Your task to perform on an android device: Clear the cart on target. Add jbl flip 4 to the cart on target Image 0: 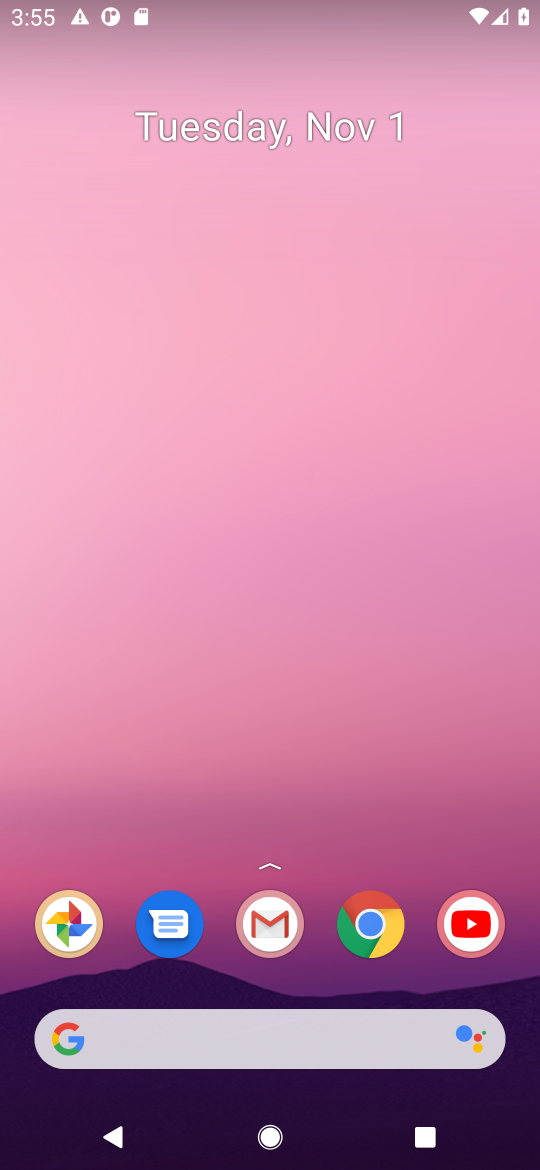
Step 0: click (382, 926)
Your task to perform on an android device: Clear the cart on target. Add jbl flip 4 to the cart on target Image 1: 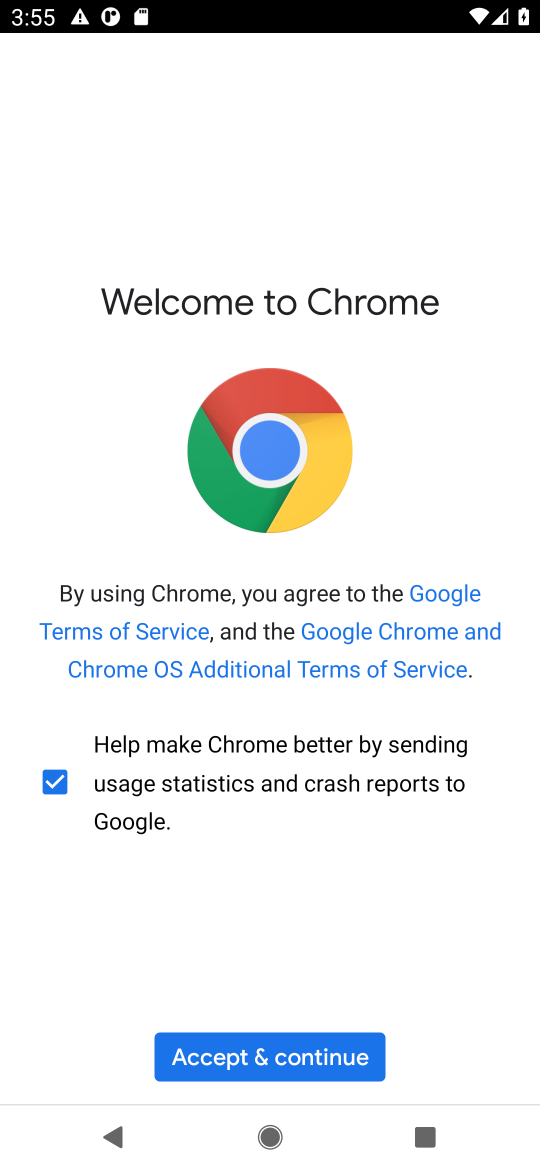
Step 1: click (231, 1068)
Your task to perform on an android device: Clear the cart on target. Add jbl flip 4 to the cart on target Image 2: 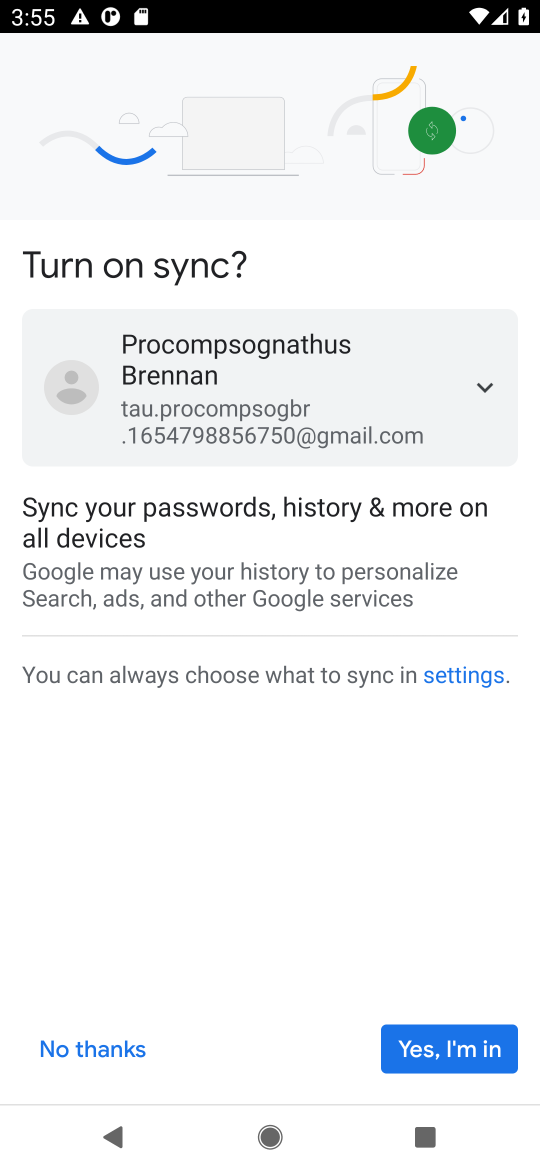
Step 2: click (427, 1055)
Your task to perform on an android device: Clear the cart on target. Add jbl flip 4 to the cart on target Image 3: 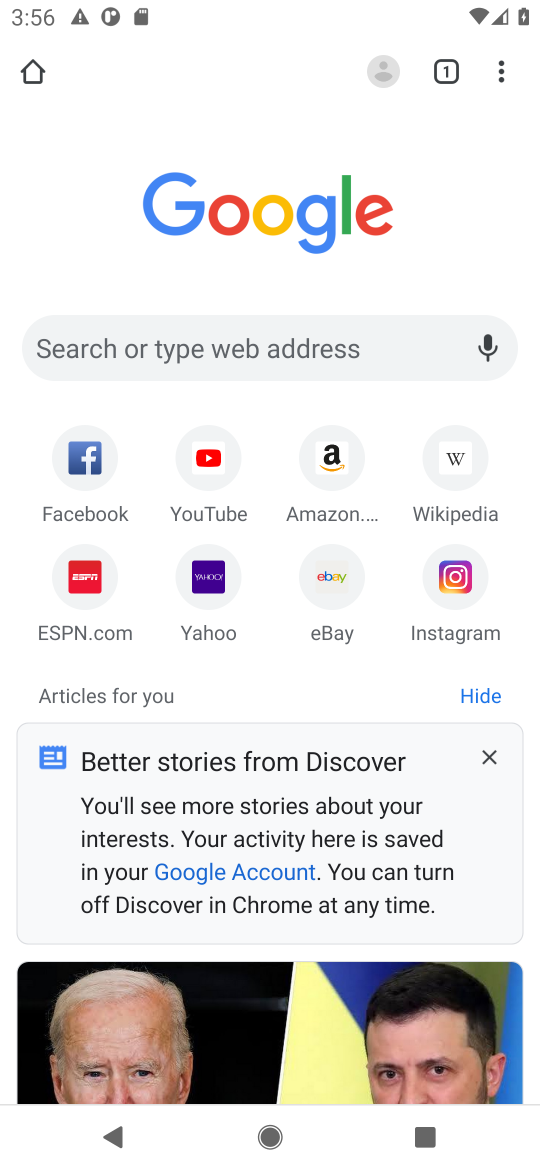
Step 3: click (350, 347)
Your task to perform on an android device: Clear the cart on target. Add jbl flip 4 to the cart on target Image 4: 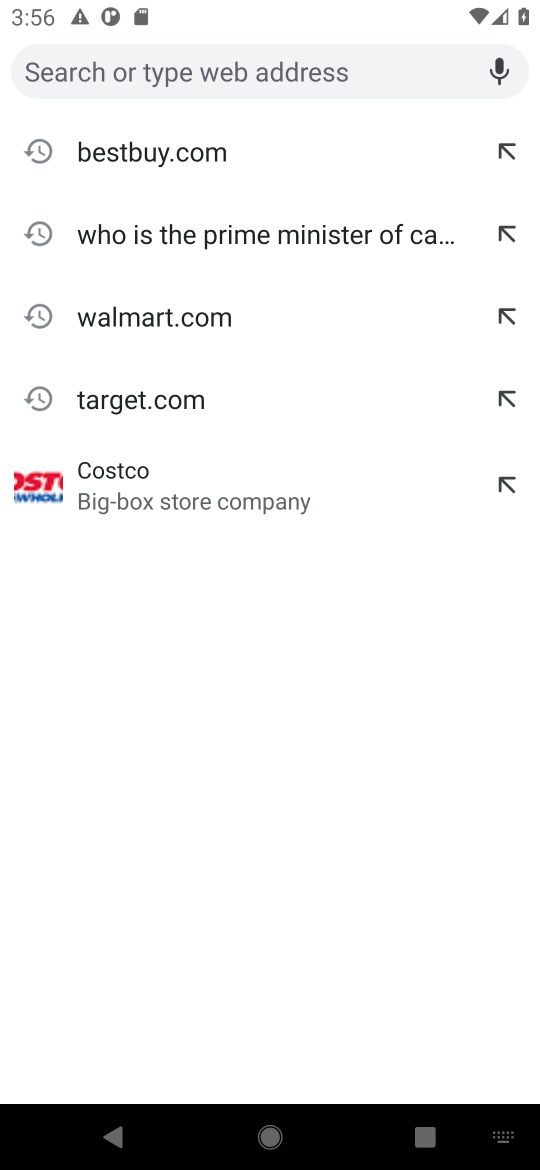
Step 4: click (184, 416)
Your task to perform on an android device: Clear the cart on target. Add jbl flip 4 to the cart on target Image 5: 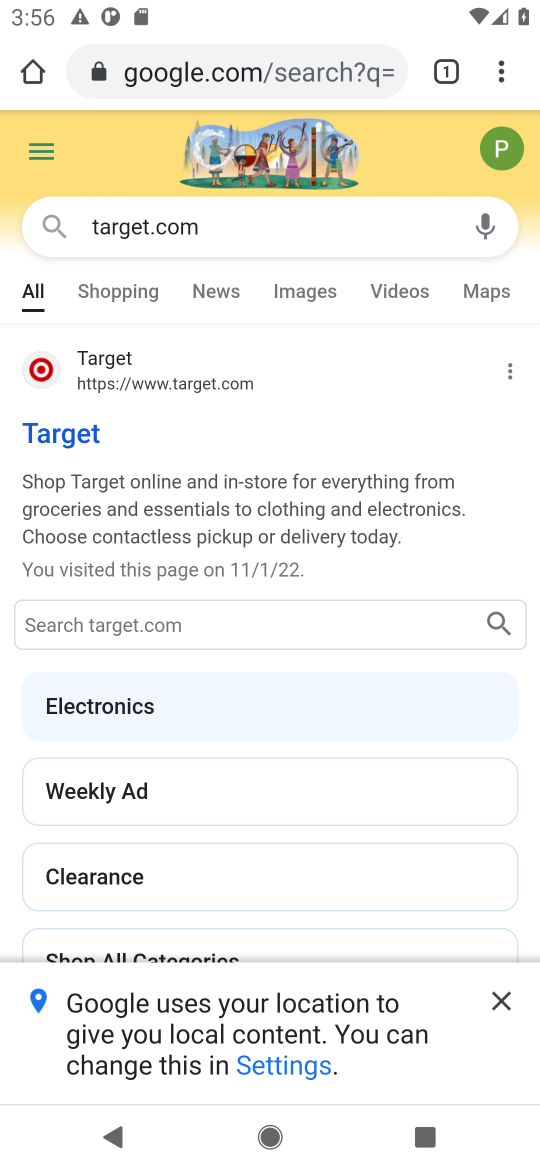
Step 5: click (77, 440)
Your task to perform on an android device: Clear the cart on target. Add jbl flip 4 to the cart on target Image 6: 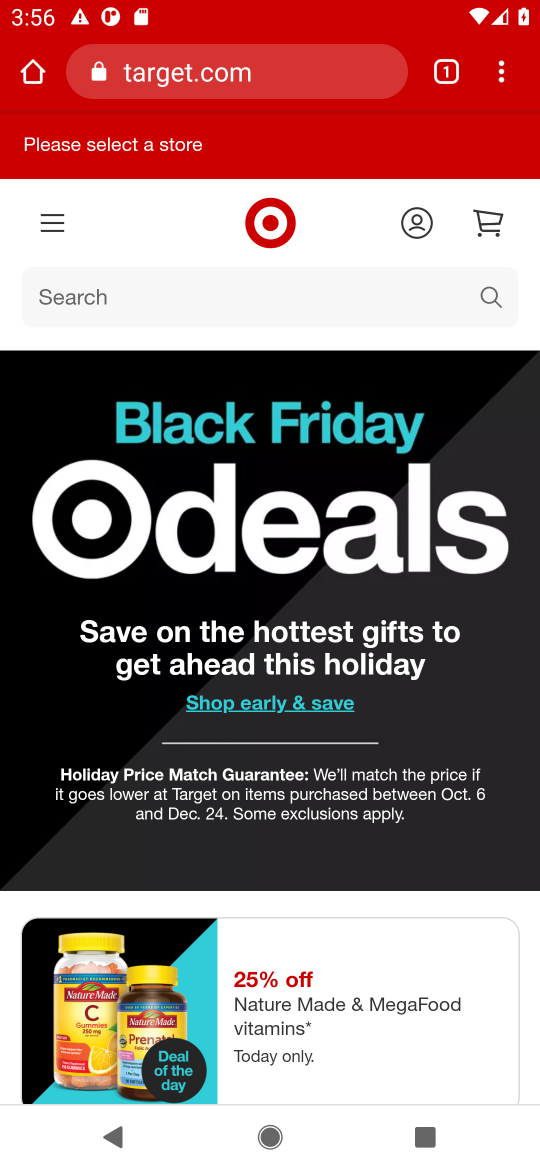
Step 6: click (493, 218)
Your task to perform on an android device: Clear the cart on target. Add jbl flip 4 to the cart on target Image 7: 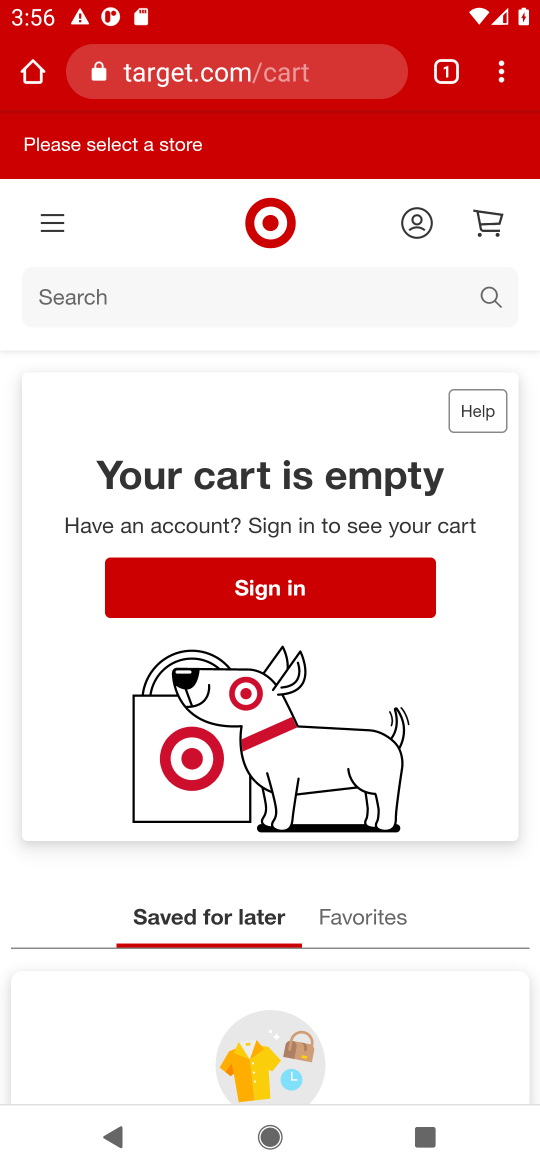
Step 7: click (339, 301)
Your task to perform on an android device: Clear the cart on target. Add jbl flip 4 to the cart on target Image 8: 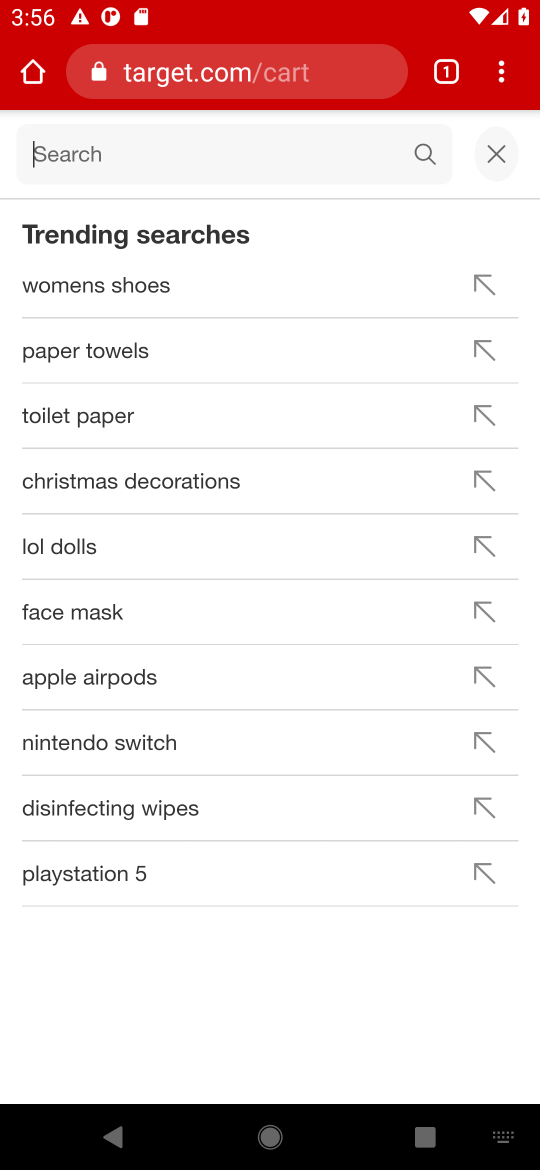
Step 8: type "jbl flip 4"
Your task to perform on an android device: Clear the cart on target. Add jbl flip 4 to the cart on target Image 9: 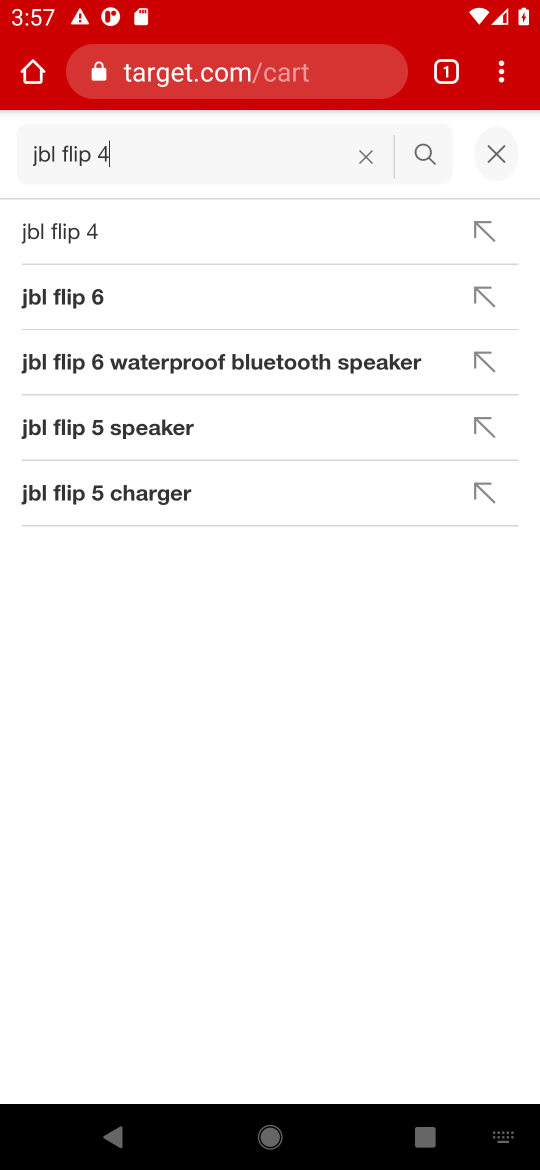
Step 9: click (433, 150)
Your task to perform on an android device: Clear the cart on target. Add jbl flip 4 to the cart on target Image 10: 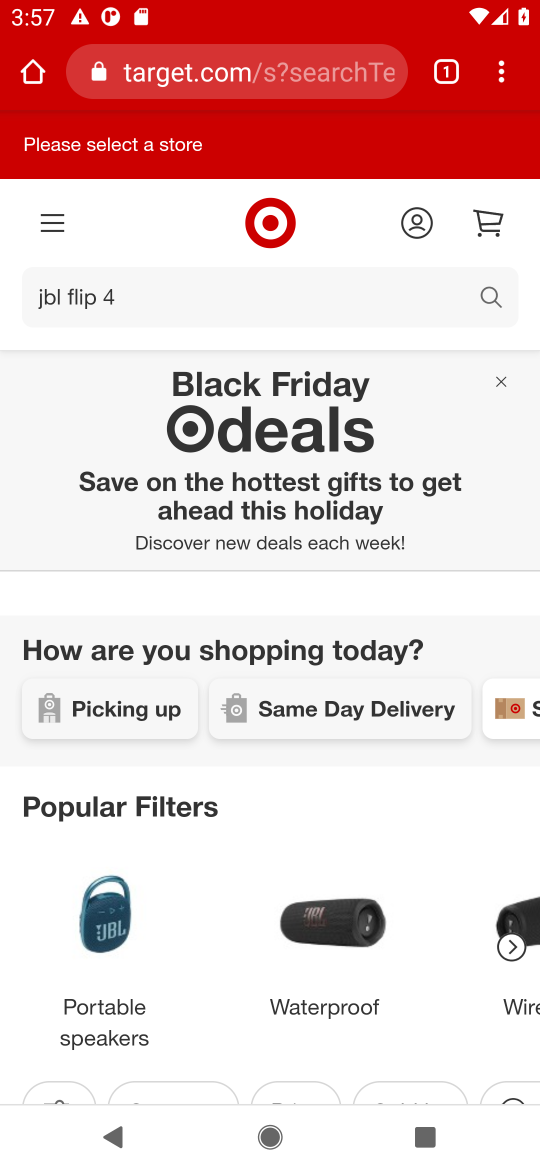
Step 10: drag from (197, 610) to (188, 234)
Your task to perform on an android device: Clear the cart on target. Add jbl flip 4 to the cart on target Image 11: 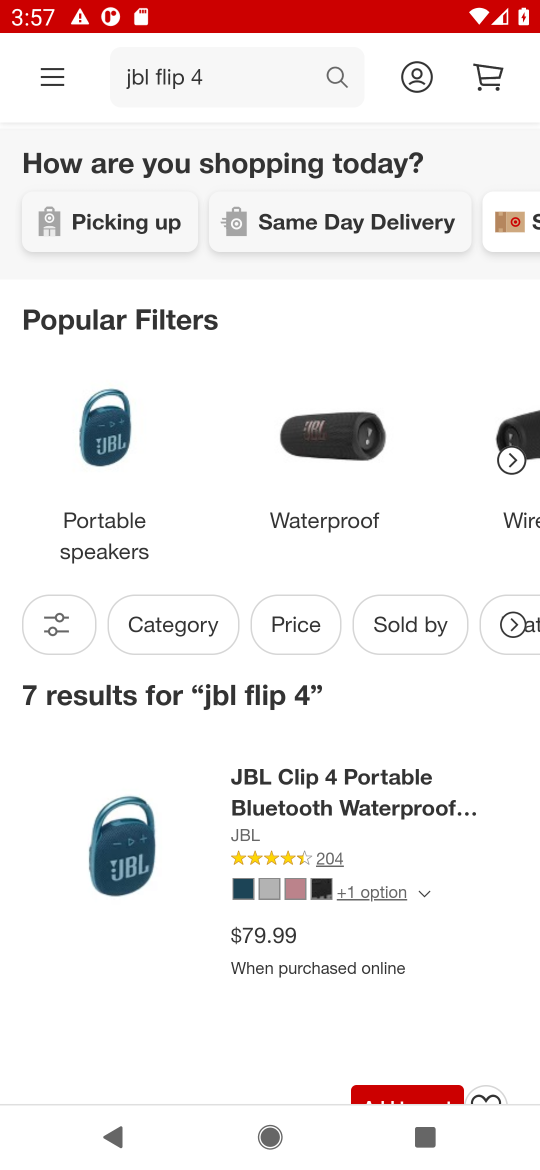
Step 11: drag from (289, 155) to (277, 70)
Your task to perform on an android device: Clear the cart on target. Add jbl flip 4 to the cart on target Image 12: 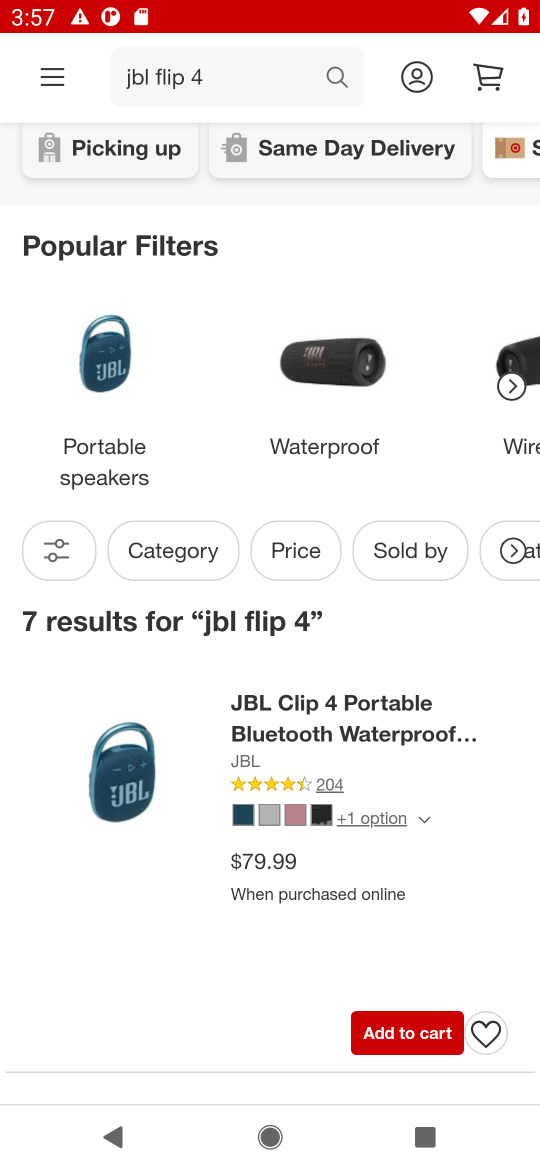
Step 12: drag from (303, 348) to (293, 215)
Your task to perform on an android device: Clear the cart on target. Add jbl flip 4 to the cart on target Image 13: 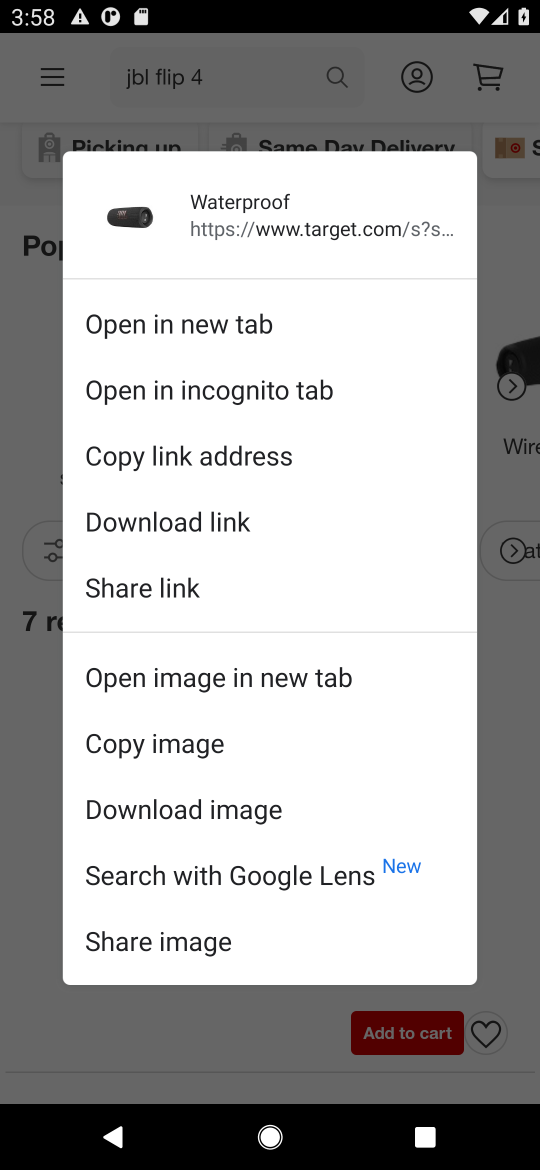
Step 13: click (169, 1035)
Your task to perform on an android device: Clear the cart on target. Add jbl flip 4 to the cart on target Image 14: 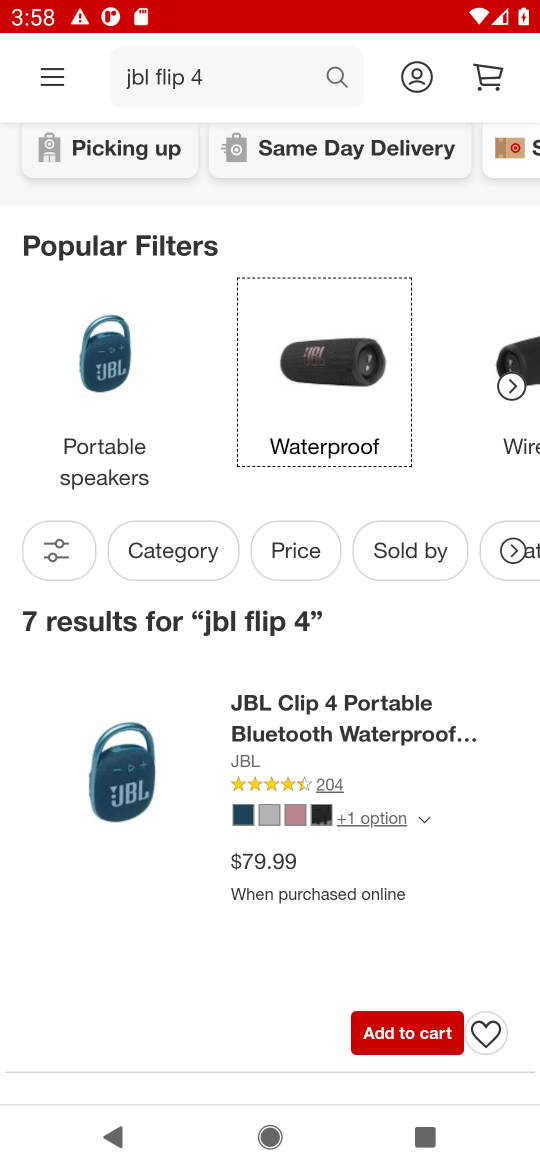
Step 14: drag from (269, 265) to (297, 148)
Your task to perform on an android device: Clear the cart on target. Add jbl flip 4 to the cart on target Image 15: 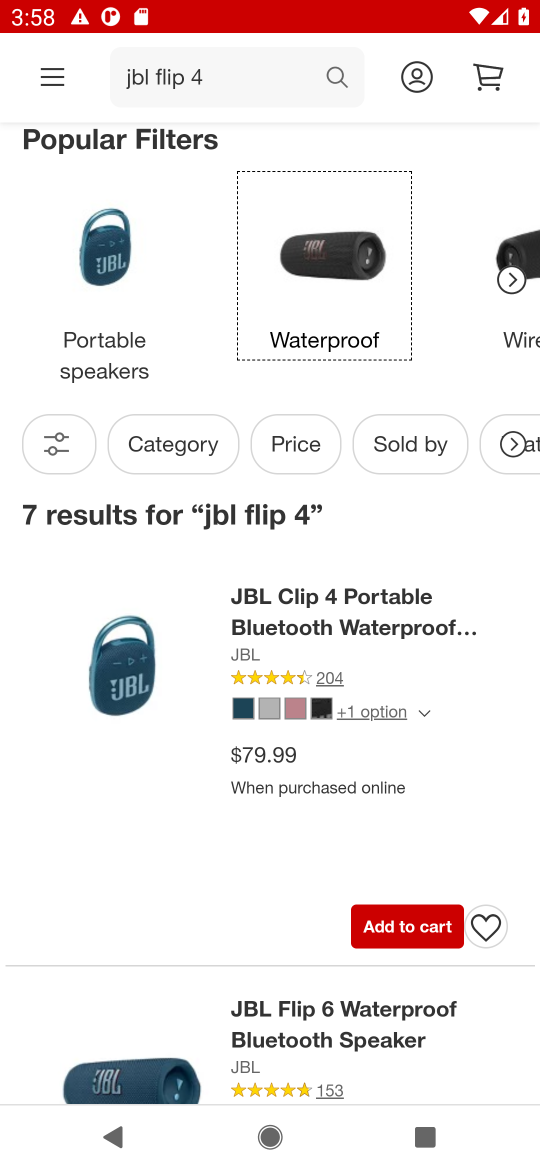
Step 15: drag from (457, 747) to (462, 306)
Your task to perform on an android device: Clear the cart on target. Add jbl flip 4 to the cart on target Image 16: 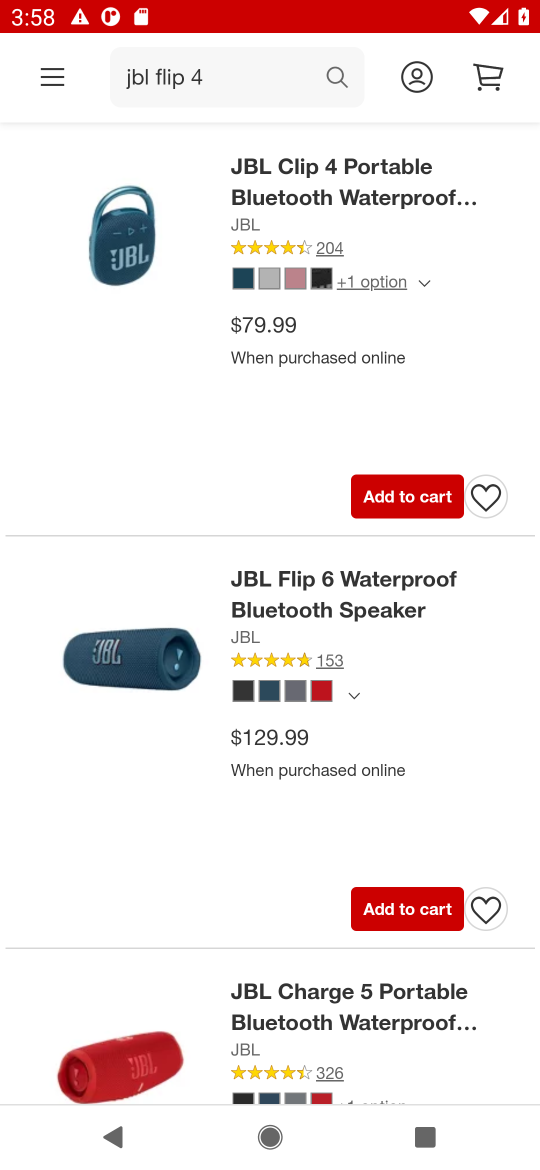
Step 16: click (384, 292)
Your task to perform on an android device: Clear the cart on target. Add jbl flip 4 to the cart on target Image 17: 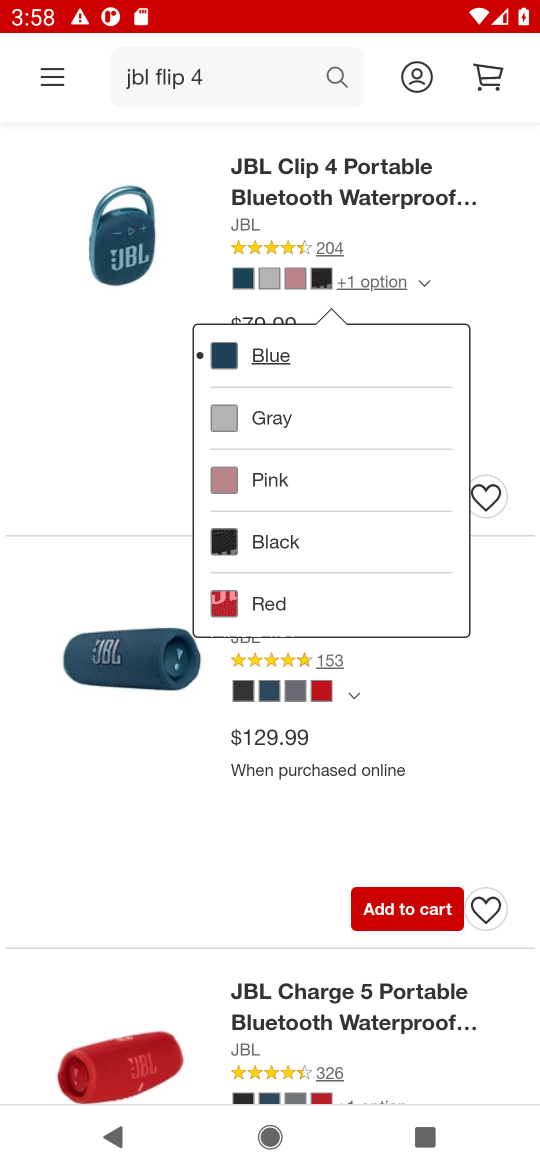
Step 17: task complete